Your task to perform on an android device: turn notification dots off Image 0: 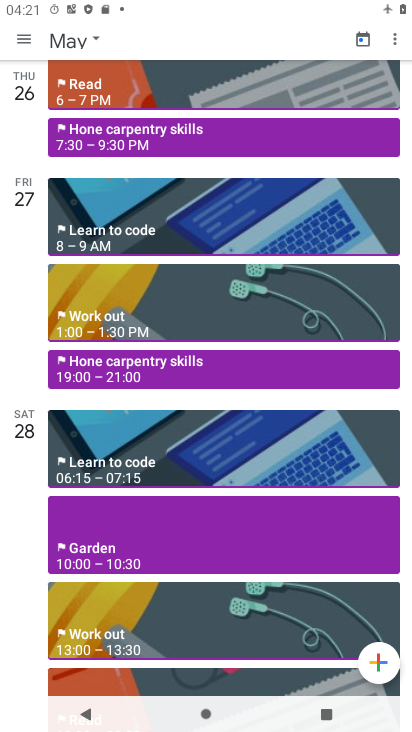
Step 0: press home button
Your task to perform on an android device: turn notification dots off Image 1: 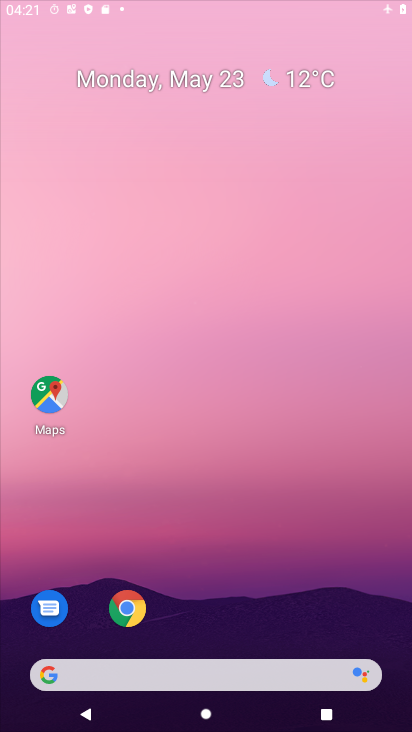
Step 1: drag from (352, 584) to (141, 9)
Your task to perform on an android device: turn notification dots off Image 2: 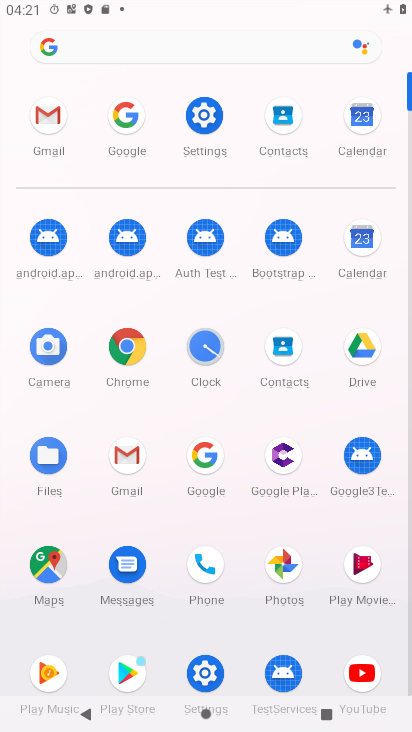
Step 2: click (205, 102)
Your task to perform on an android device: turn notification dots off Image 3: 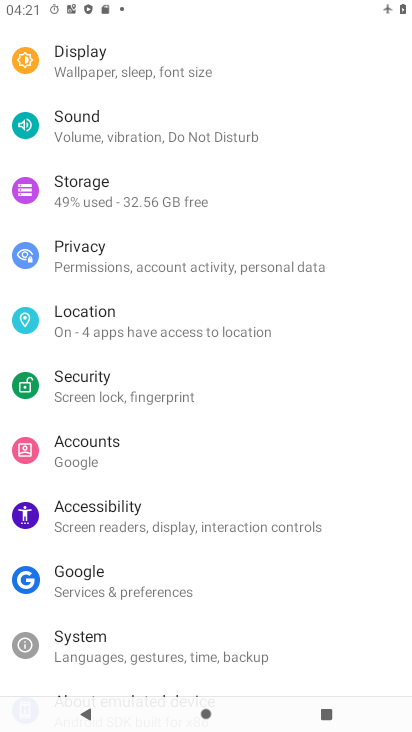
Step 3: drag from (181, 156) to (226, 630)
Your task to perform on an android device: turn notification dots off Image 4: 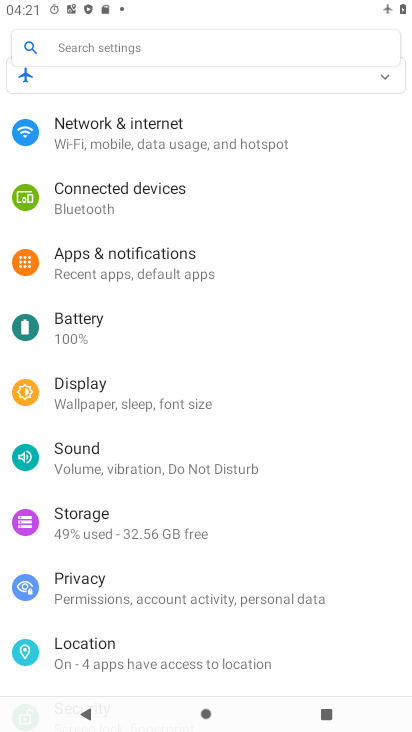
Step 4: click (182, 262)
Your task to perform on an android device: turn notification dots off Image 5: 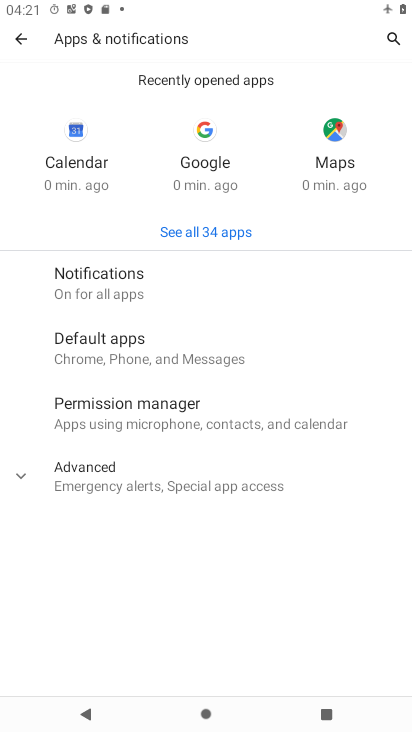
Step 5: click (153, 298)
Your task to perform on an android device: turn notification dots off Image 6: 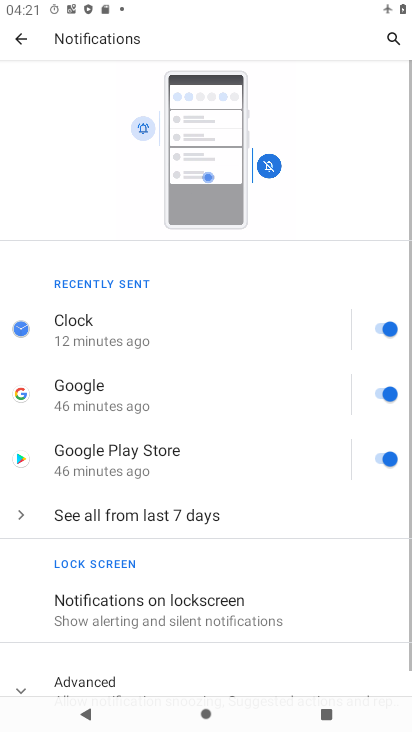
Step 6: click (225, 663)
Your task to perform on an android device: turn notification dots off Image 7: 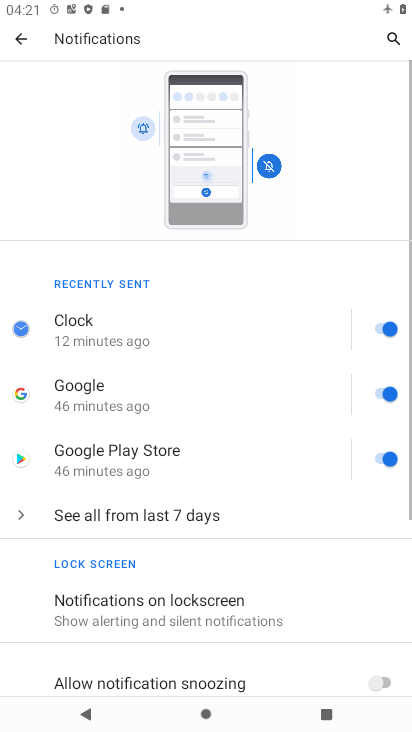
Step 7: drag from (214, 645) to (193, 219)
Your task to perform on an android device: turn notification dots off Image 8: 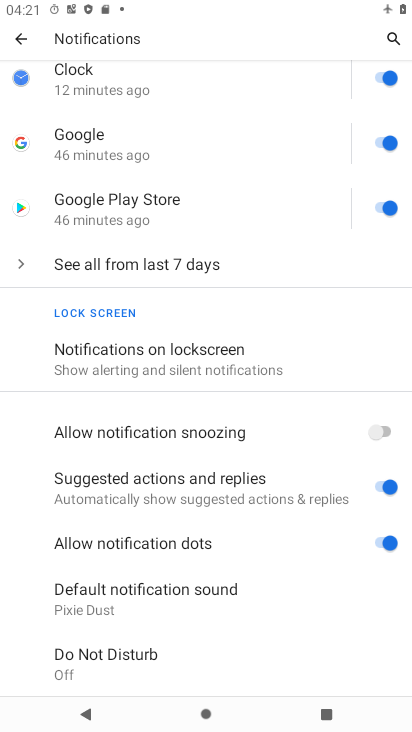
Step 8: click (378, 544)
Your task to perform on an android device: turn notification dots off Image 9: 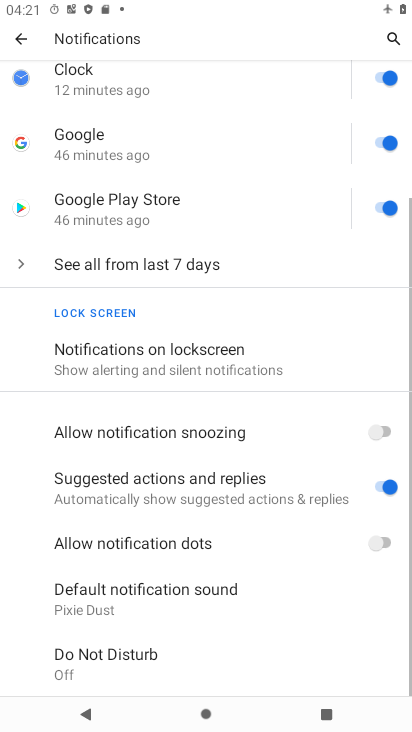
Step 9: task complete